Your task to perform on an android device: search for starred emails in the gmail app Image 0: 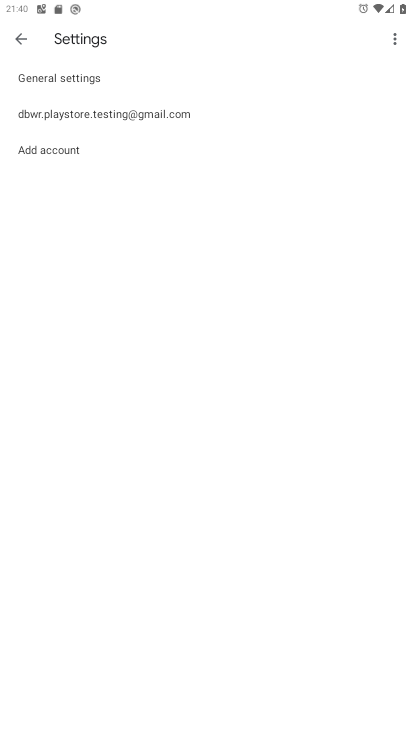
Step 0: press home button
Your task to perform on an android device: search for starred emails in the gmail app Image 1: 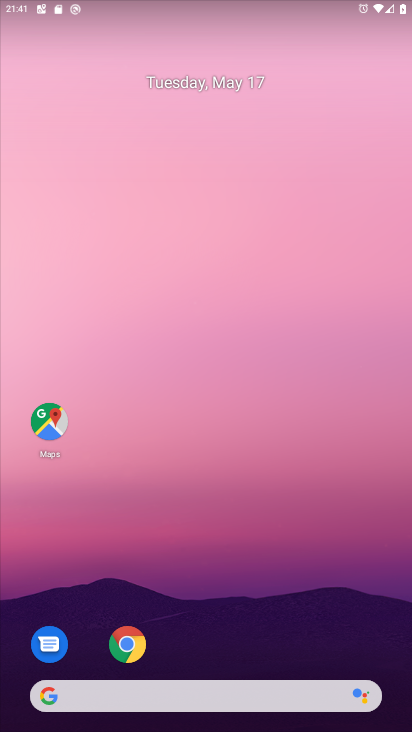
Step 1: drag from (206, 660) to (253, 132)
Your task to perform on an android device: search for starred emails in the gmail app Image 2: 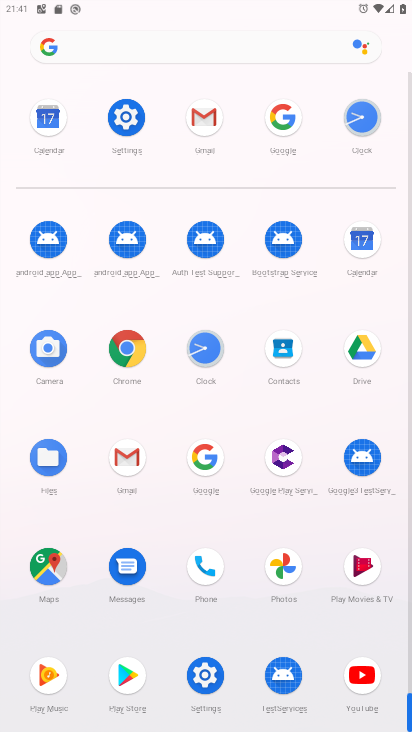
Step 2: click (123, 456)
Your task to perform on an android device: search for starred emails in the gmail app Image 3: 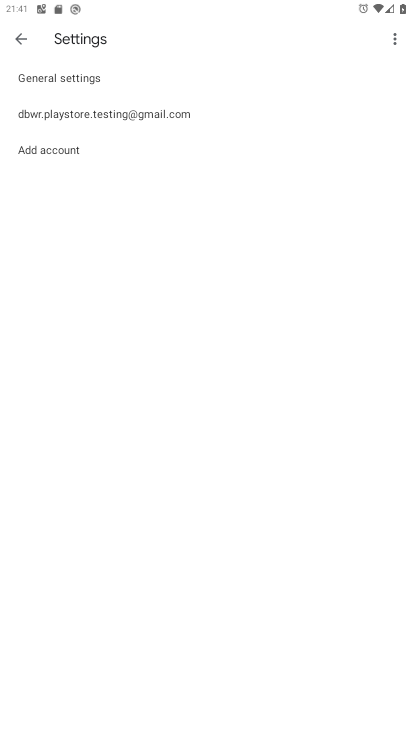
Step 3: click (28, 39)
Your task to perform on an android device: search for starred emails in the gmail app Image 4: 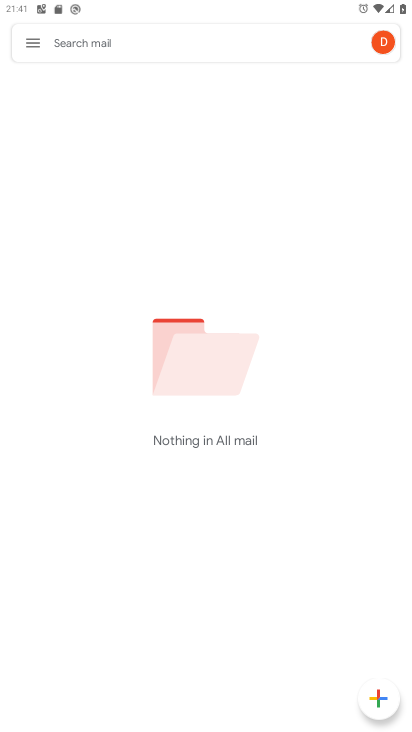
Step 4: click (31, 47)
Your task to perform on an android device: search for starred emails in the gmail app Image 5: 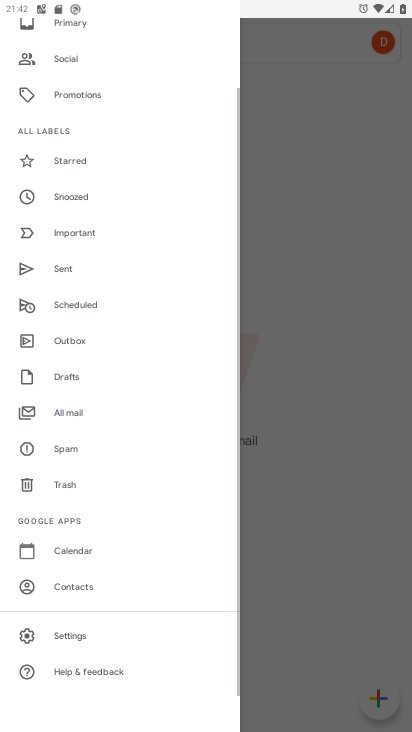
Step 5: click (70, 158)
Your task to perform on an android device: search for starred emails in the gmail app Image 6: 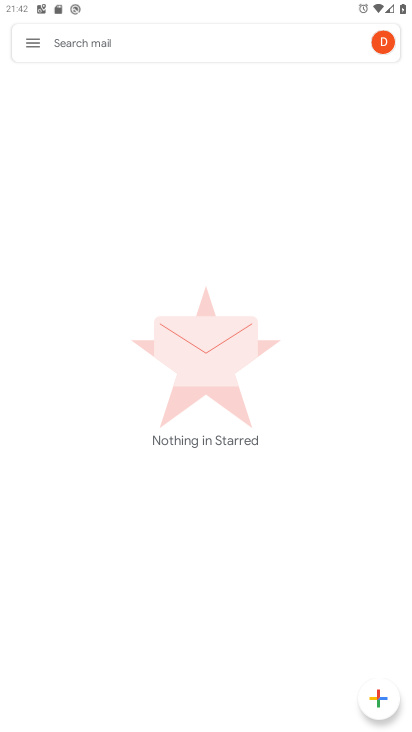
Step 6: task complete